Your task to perform on an android device: Show me productivity apps on the Play Store Image 0: 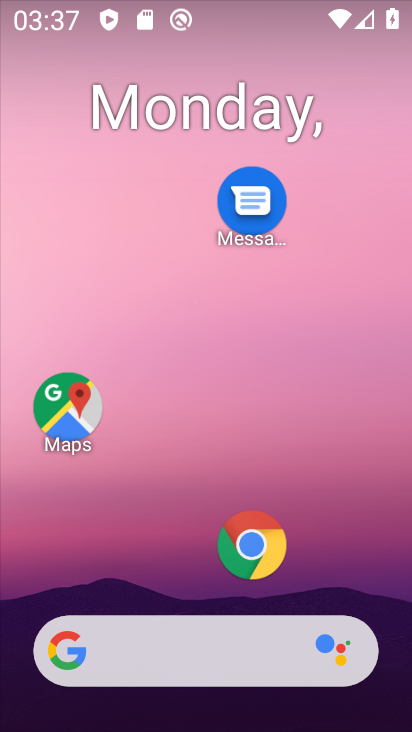
Step 0: drag from (166, 562) to (261, 87)
Your task to perform on an android device: Show me productivity apps on the Play Store Image 1: 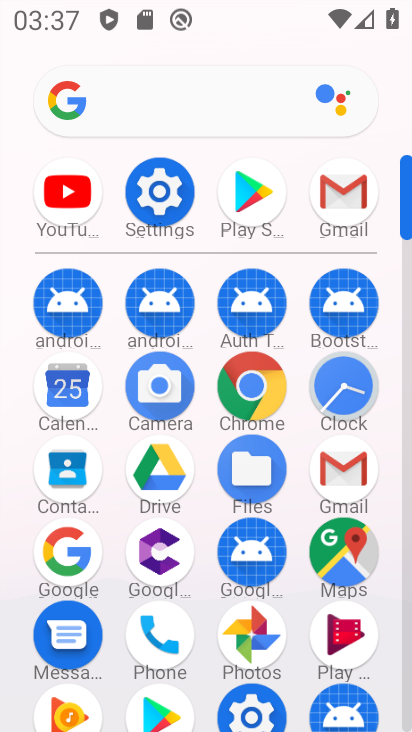
Step 1: click (154, 705)
Your task to perform on an android device: Show me productivity apps on the Play Store Image 2: 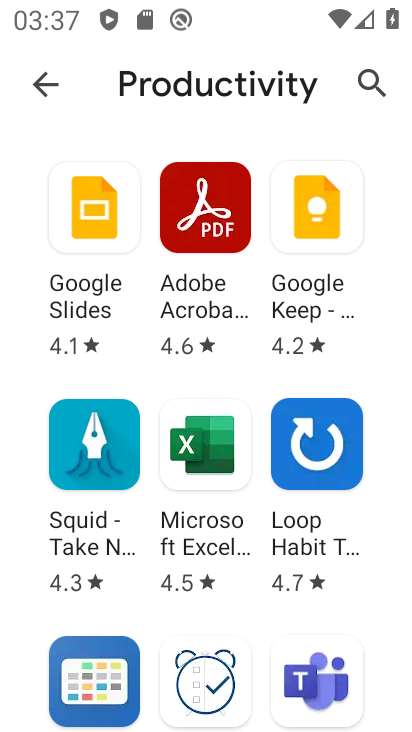
Step 2: task complete